Your task to perform on an android device: Search for sushi restaurants on Maps Image 0: 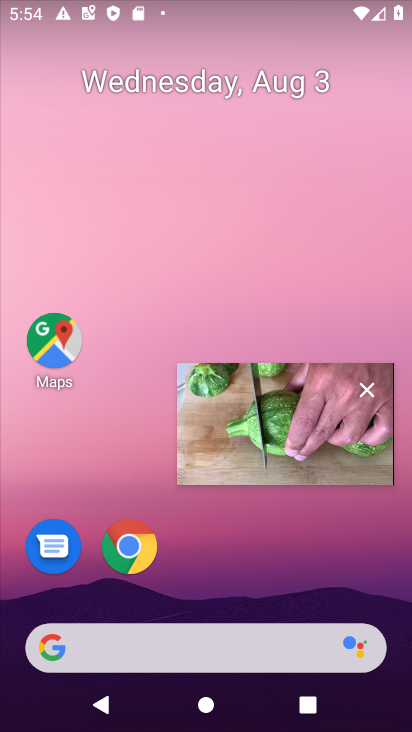
Step 0: press home button
Your task to perform on an android device: Search for sushi restaurants on Maps Image 1: 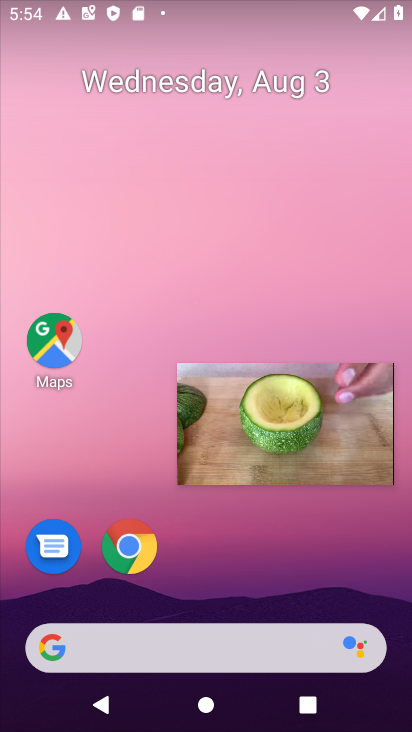
Step 1: press home button
Your task to perform on an android device: Search for sushi restaurants on Maps Image 2: 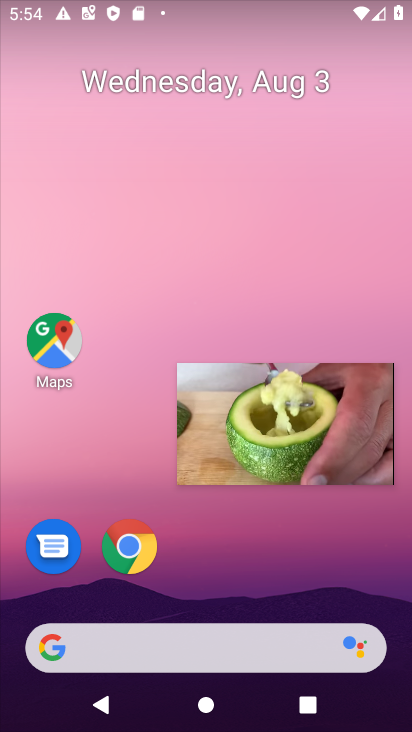
Step 2: click (354, 367)
Your task to perform on an android device: Search for sushi restaurants on Maps Image 3: 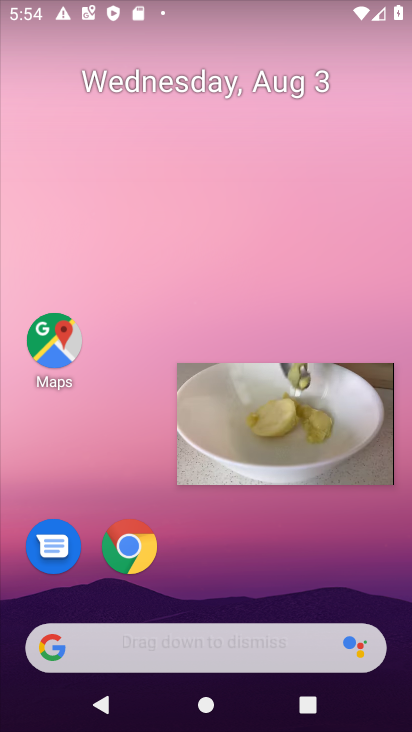
Step 3: click (384, 377)
Your task to perform on an android device: Search for sushi restaurants on Maps Image 4: 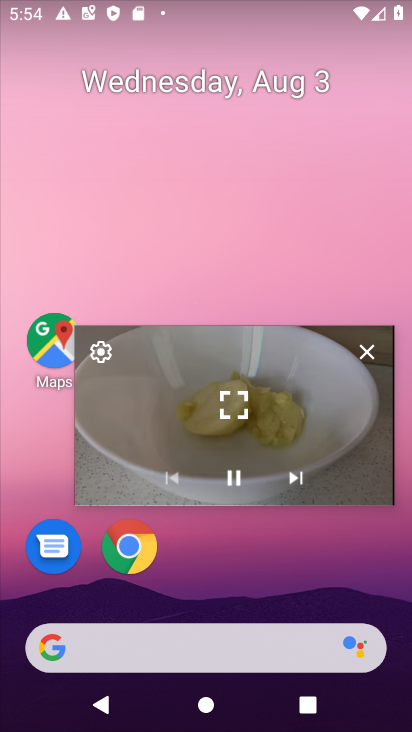
Step 4: click (303, 410)
Your task to perform on an android device: Search for sushi restaurants on Maps Image 5: 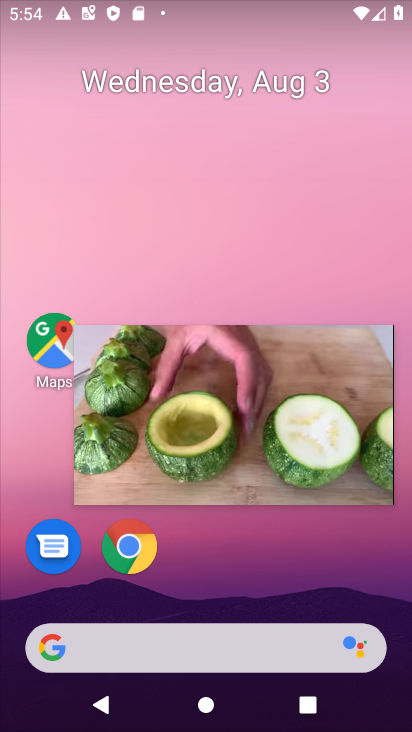
Step 5: click (277, 422)
Your task to perform on an android device: Search for sushi restaurants on Maps Image 6: 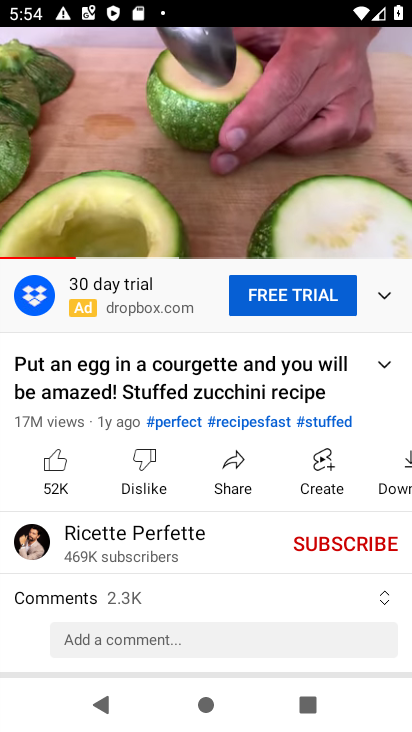
Step 6: press home button
Your task to perform on an android device: Search for sushi restaurants on Maps Image 7: 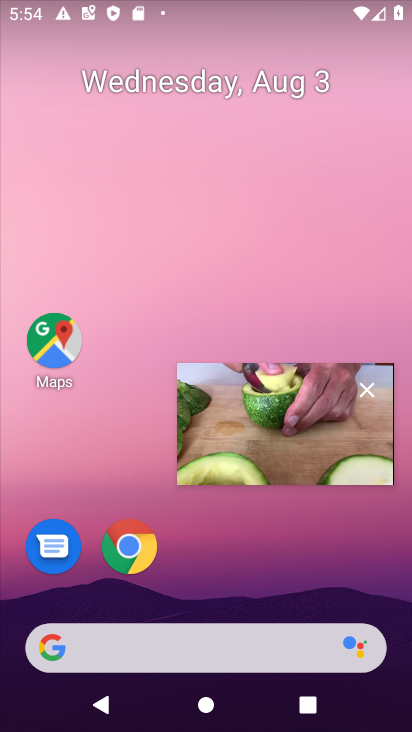
Step 7: click (364, 387)
Your task to perform on an android device: Search for sushi restaurants on Maps Image 8: 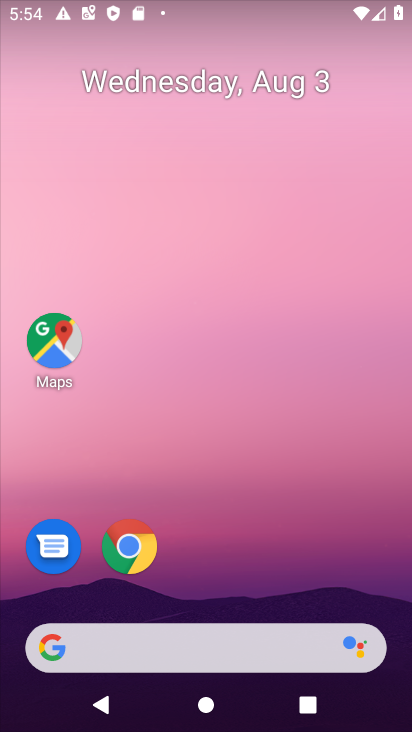
Step 8: click (47, 357)
Your task to perform on an android device: Search for sushi restaurants on Maps Image 9: 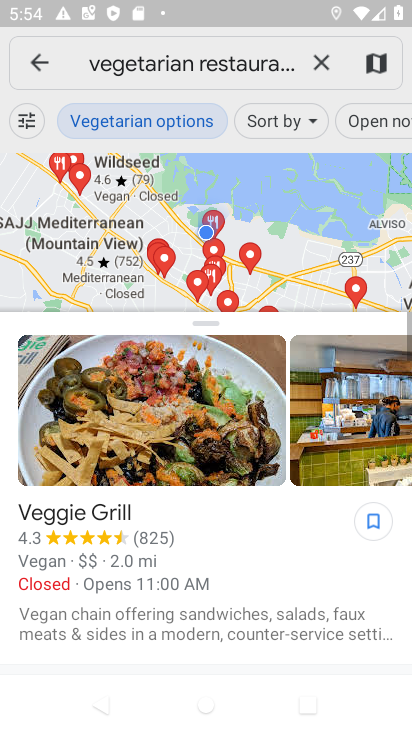
Step 9: click (325, 59)
Your task to perform on an android device: Search for sushi restaurants on Maps Image 10: 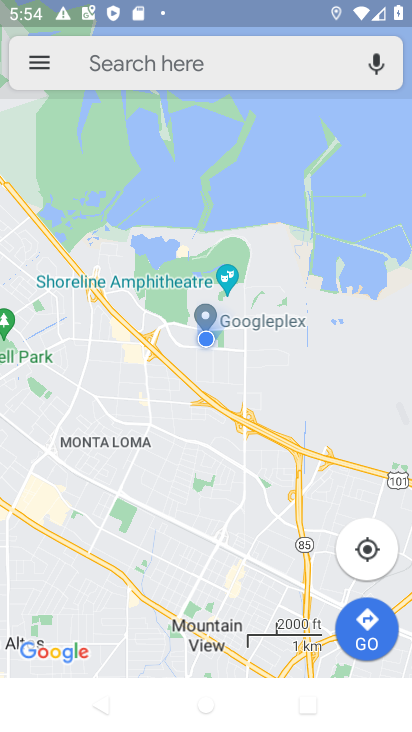
Step 10: click (164, 71)
Your task to perform on an android device: Search for sushi restaurants on Maps Image 11: 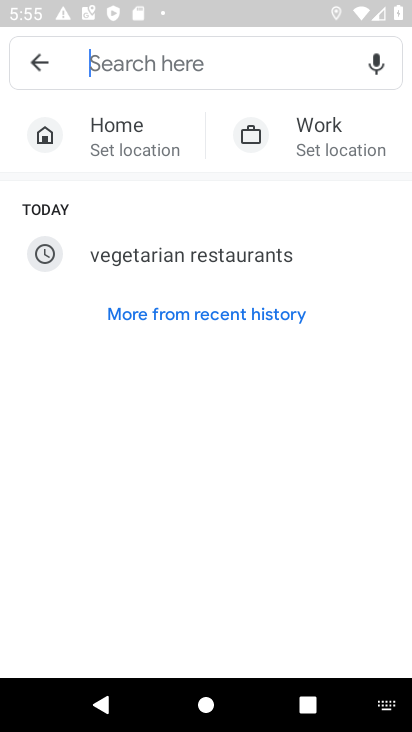
Step 11: type "sushi restaurant"
Your task to perform on an android device: Search for sushi restaurants on Maps Image 12: 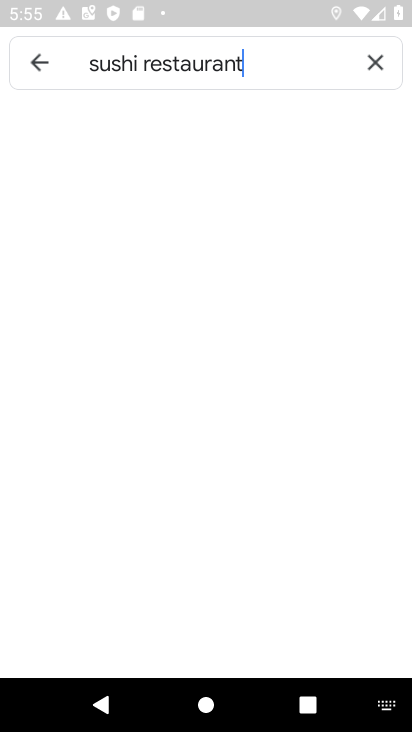
Step 12: press enter
Your task to perform on an android device: Search for sushi restaurants on Maps Image 13: 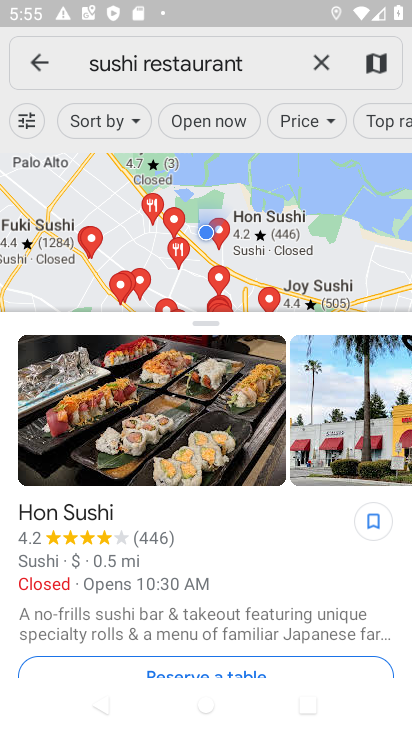
Step 13: task complete